Your task to perform on an android device: Go to Yahoo.com Image 0: 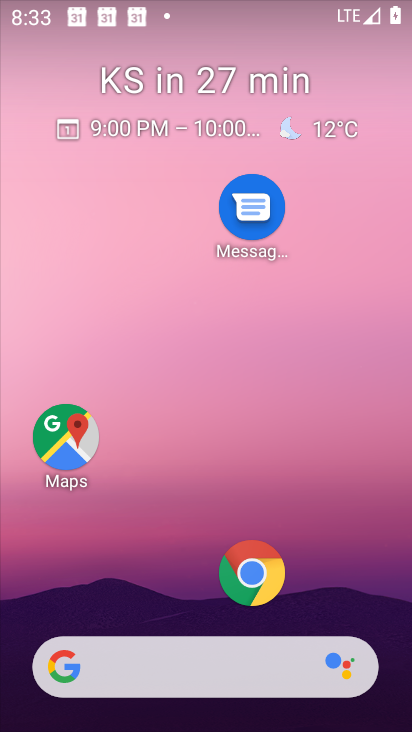
Step 0: click (249, 574)
Your task to perform on an android device: Go to Yahoo.com Image 1: 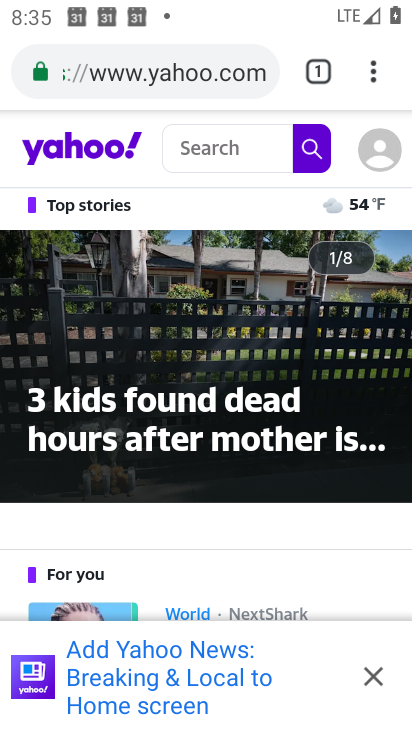
Step 1: task complete